Your task to perform on an android device: turn off notifications settings in the gmail app Image 0: 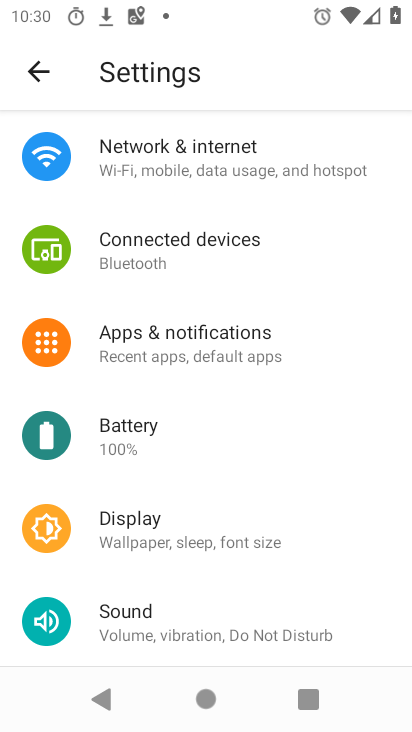
Step 0: press home button
Your task to perform on an android device: turn off notifications settings in the gmail app Image 1: 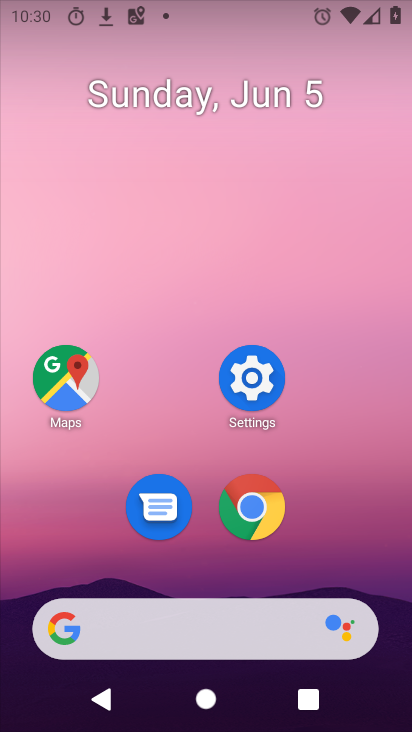
Step 1: drag from (210, 669) to (203, 208)
Your task to perform on an android device: turn off notifications settings in the gmail app Image 2: 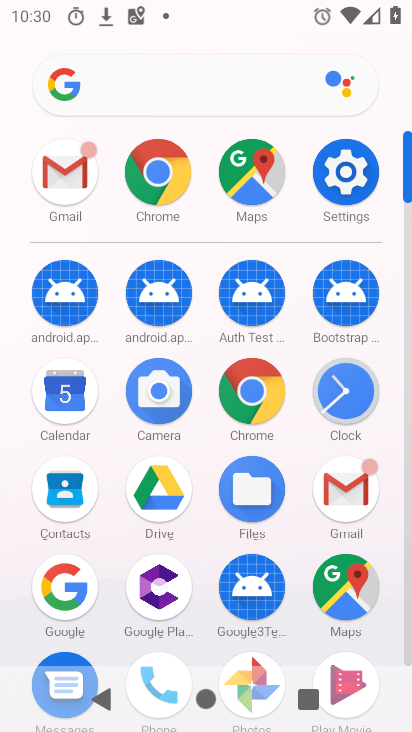
Step 2: click (82, 177)
Your task to perform on an android device: turn off notifications settings in the gmail app Image 3: 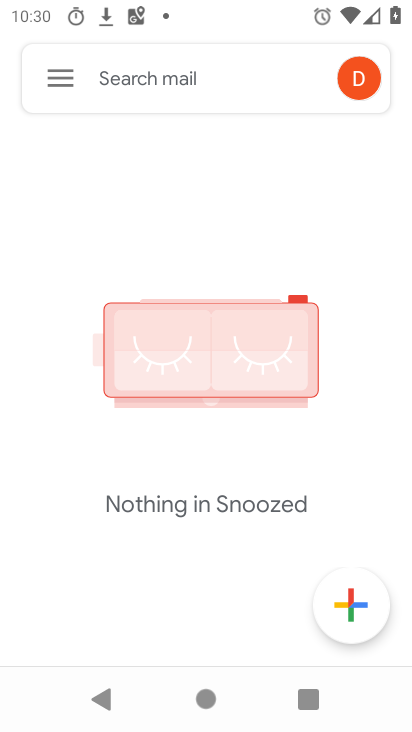
Step 3: click (67, 105)
Your task to perform on an android device: turn off notifications settings in the gmail app Image 4: 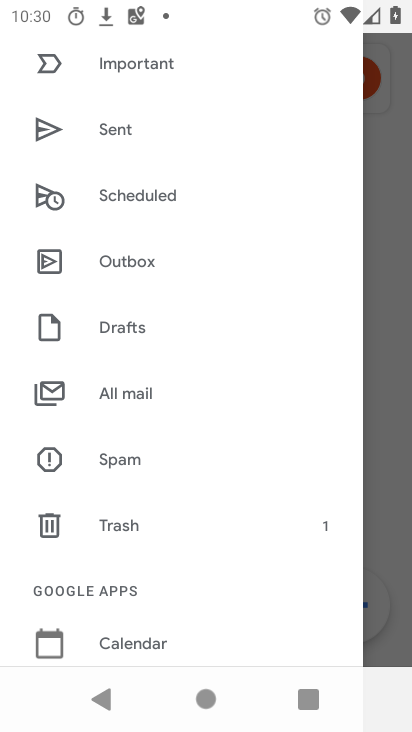
Step 4: drag from (142, 552) to (181, 324)
Your task to perform on an android device: turn off notifications settings in the gmail app Image 5: 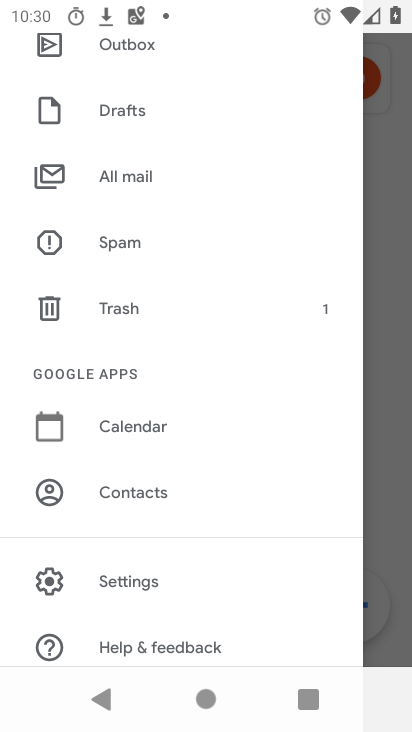
Step 5: click (154, 597)
Your task to perform on an android device: turn off notifications settings in the gmail app Image 6: 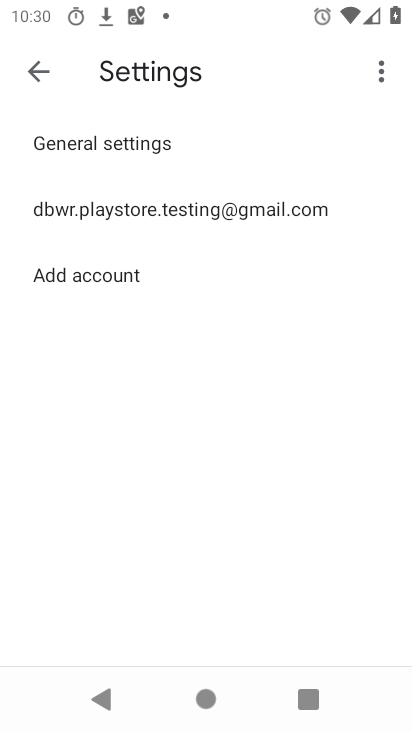
Step 6: click (123, 224)
Your task to perform on an android device: turn off notifications settings in the gmail app Image 7: 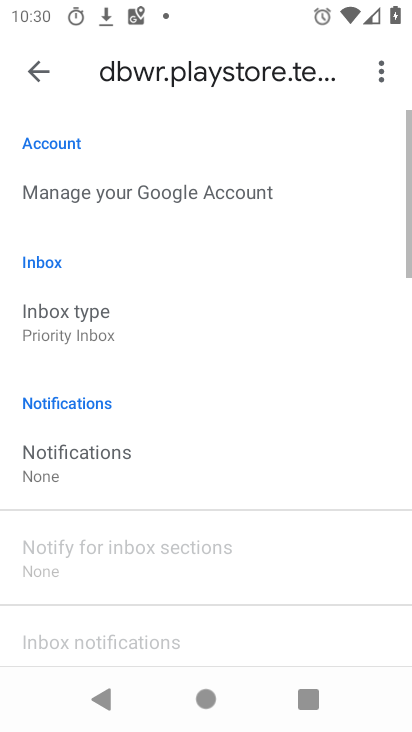
Step 7: click (127, 459)
Your task to perform on an android device: turn off notifications settings in the gmail app Image 8: 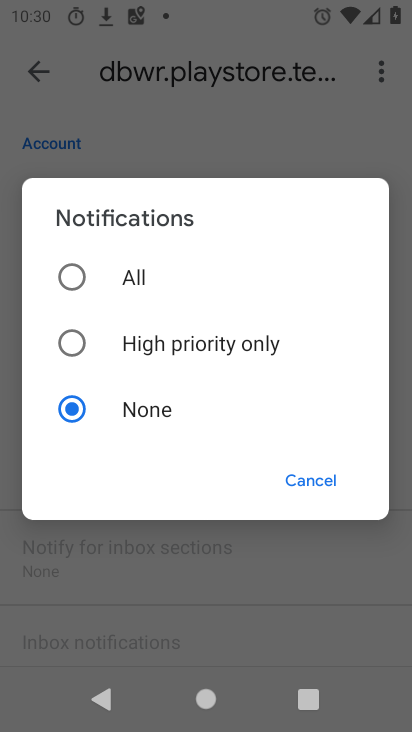
Step 8: task complete